Your task to perform on an android device: Open Chrome and go to the settings page Image 0: 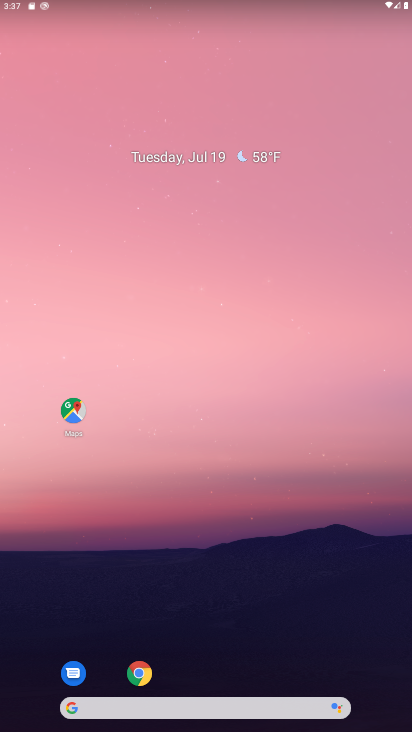
Step 0: drag from (324, 672) to (304, 92)
Your task to perform on an android device: Open Chrome and go to the settings page Image 1: 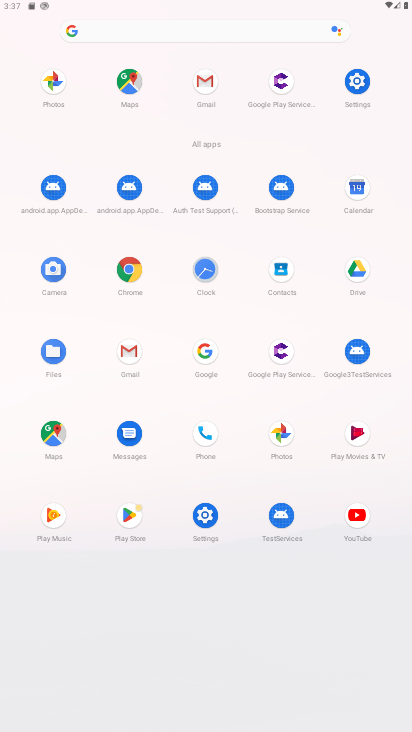
Step 1: click (136, 272)
Your task to perform on an android device: Open Chrome and go to the settings page Image 2: 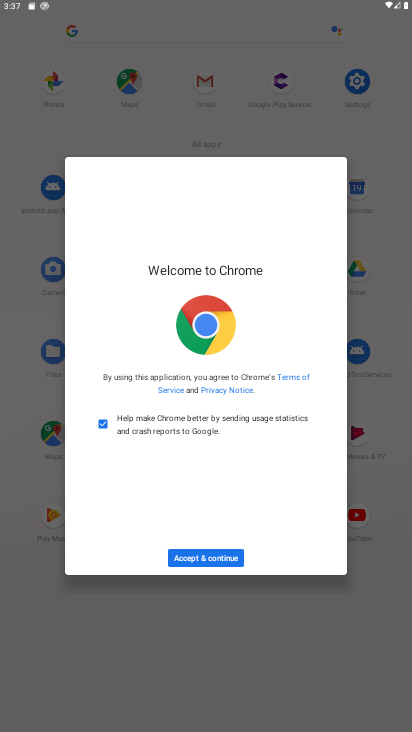
Step 2: click (219, 564)
Your task to perform on an android device: Open Chrome and go to the settings page Image 3: 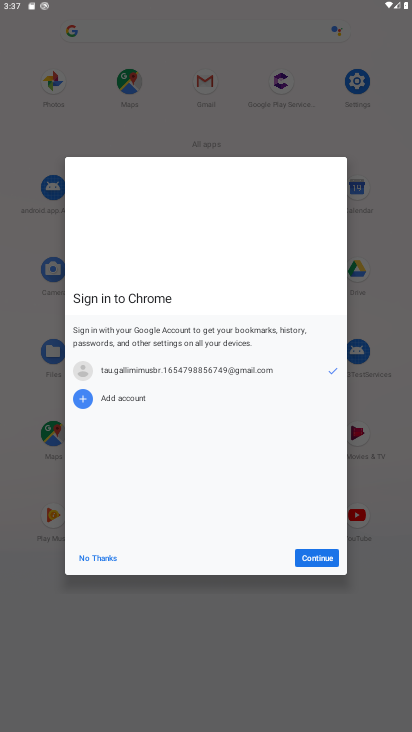
Step 3: click (107, 560)
Your task to perform on an android device: Open Chrome and go to the settings page Image 4: 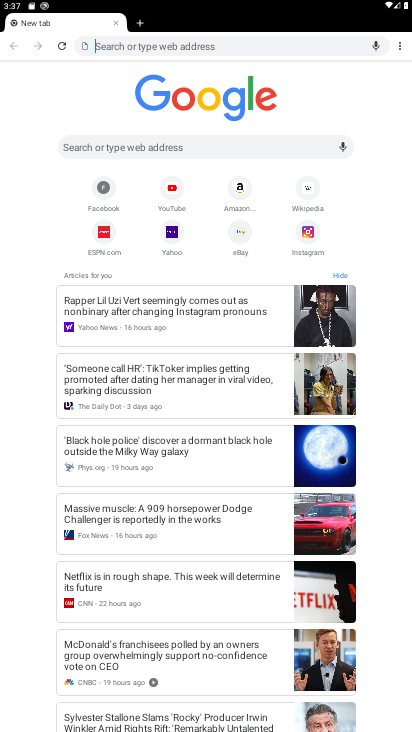
Step 4: click (398, 45)
Your task to perform on an android device: Open Chrome and go to the settings page Image 5: 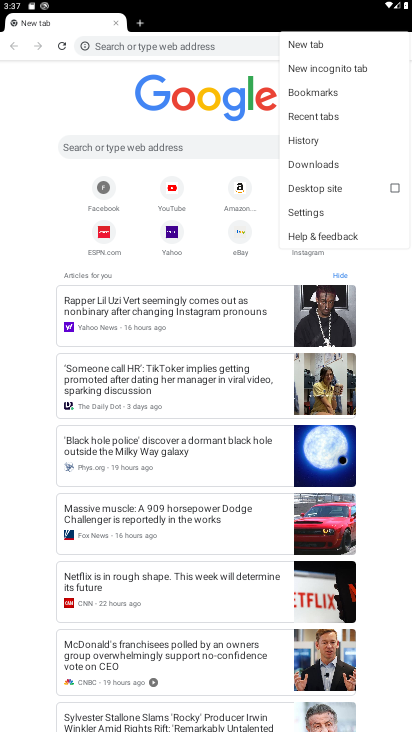
Step 5: click (303, 215)
Your task to perform on an android device: Open Chrome and go to the settings page Image 6: 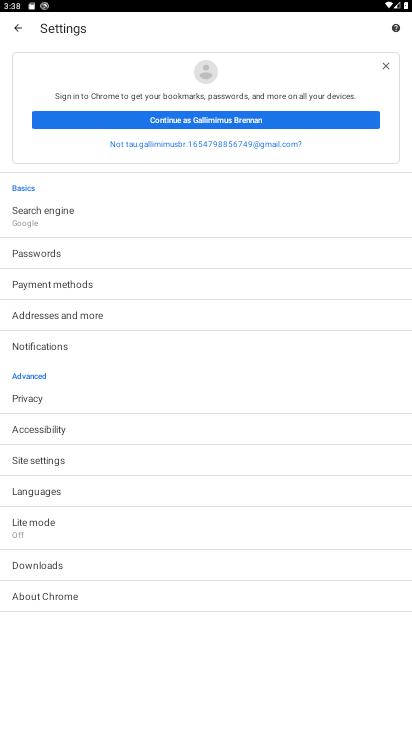
Step 6: task complete